Your task to perform on an android device: Open settings on Google Maps Image 0: 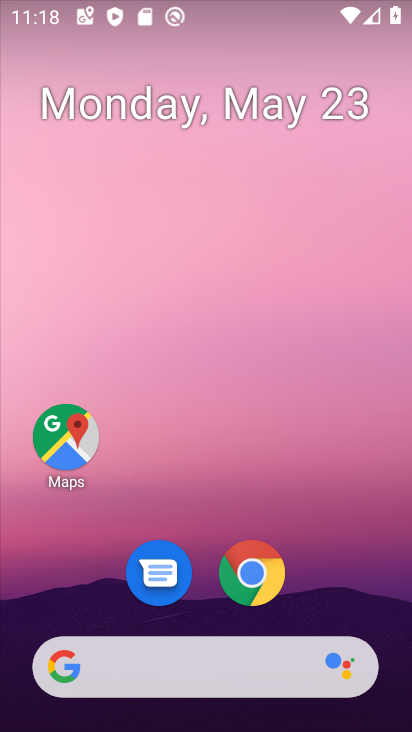
Step 0: drag from (356, 585) to (385, 226)
Your task to perform on an android device: Open settings on Google Maps Image 1: 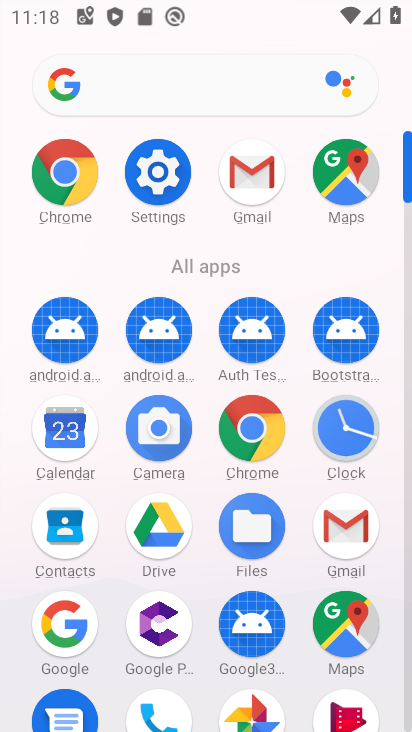
Step 1: drag from (392, 665) to (390, 427)
Your task to perform on an android device: Open settings on Google Maps Image 2: 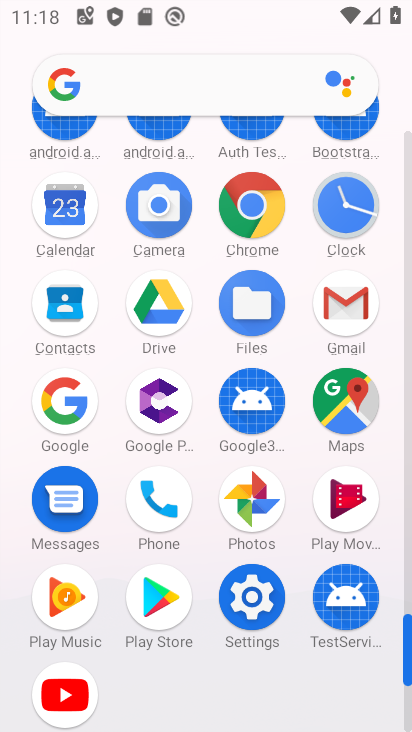
Step 2: click (347, 411)
Your task to perform on an android device: Open settings on Google Maps Image 3: 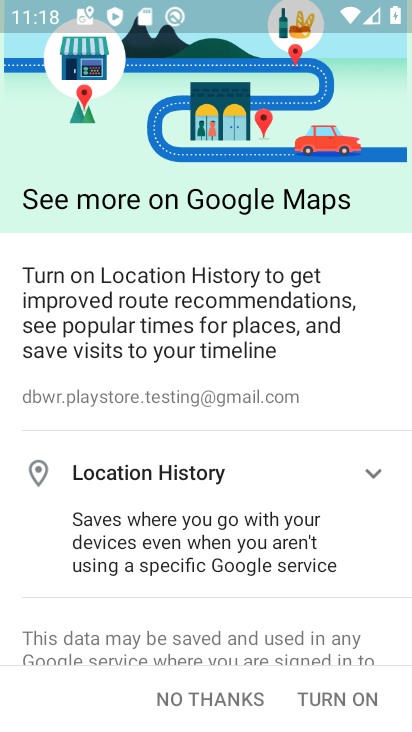
Step 3: task complete